Your task to perform on an android device: Go to Android settings Image 0: 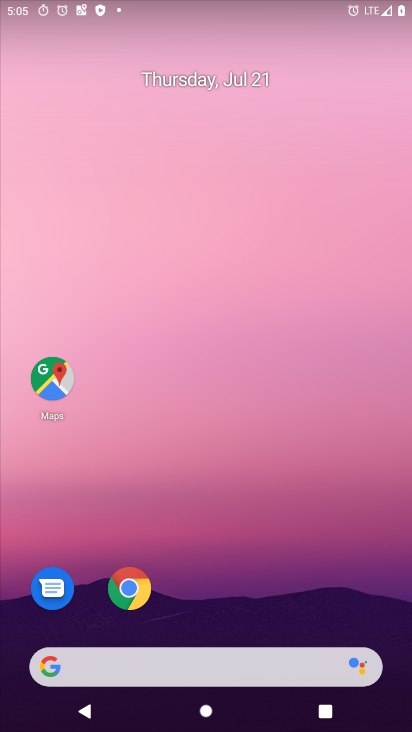
Step 0: drag from (237, 635) to (222, 79)
Your task to perform on an android device: Go to Android settings Image 1: 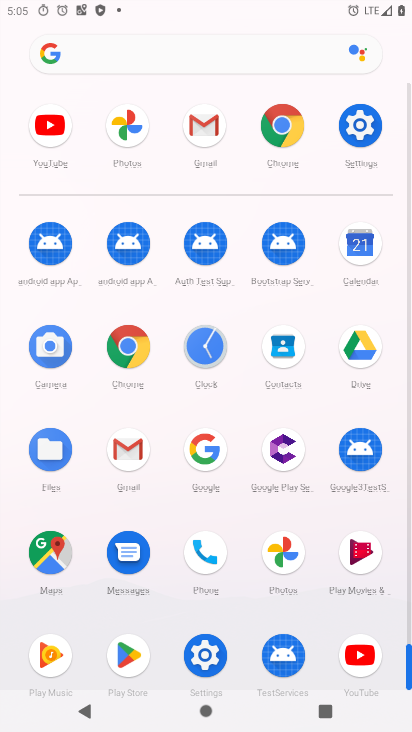
Step 1: click (208, 644)
Your task to perform on an android device: Go to Android settings Image 2: 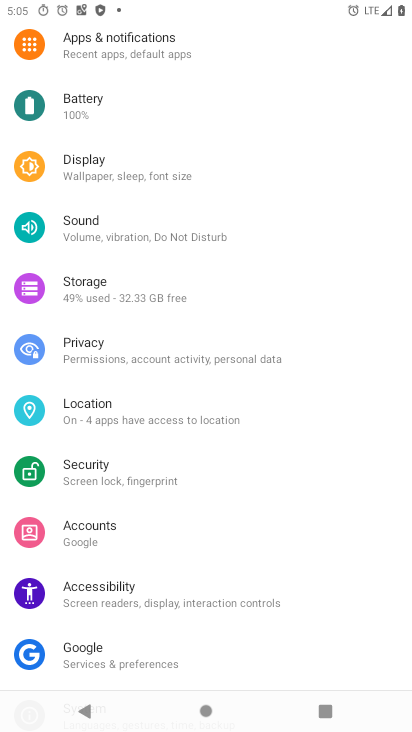
Step 2: drag from (186, 591) to (188, 226)
Your task to perform on an android device: Go to Android settings Image 3: 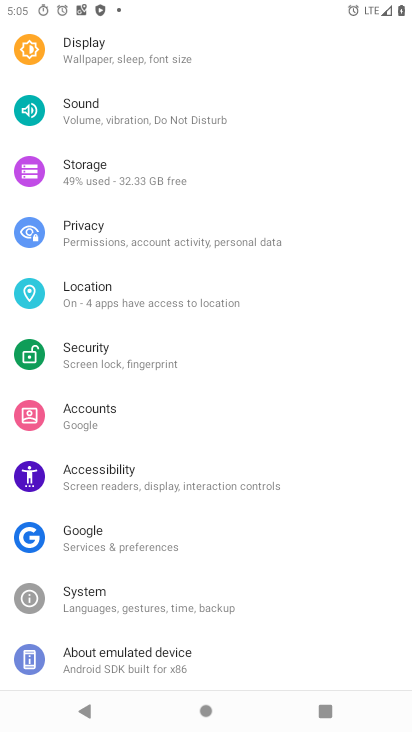
Step 3: click (75, 656)
Your task to perform on an android device: Go to Android settings Image 4: 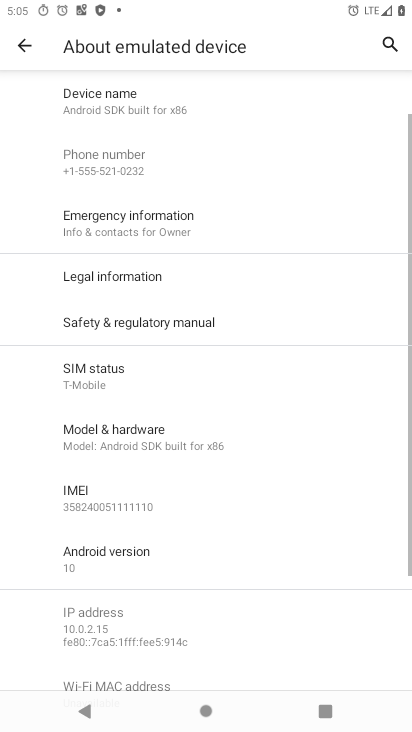
Step 4: click (115, 543)
Your task to perform on an android device: Go to Android settings Image 5: 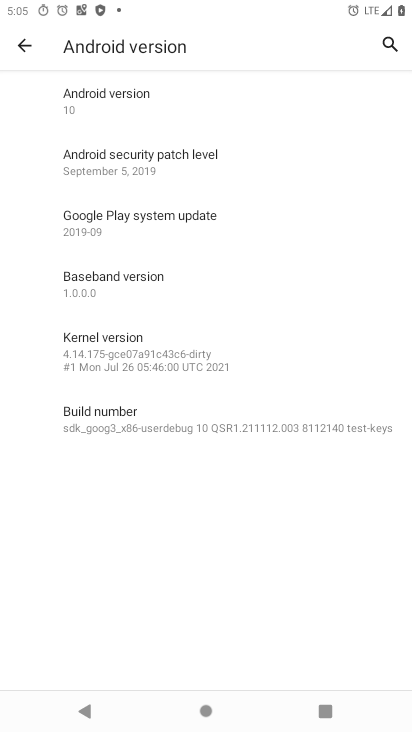
Step 5: task complete